Your task to perform on an android device: Open maps Image 0: 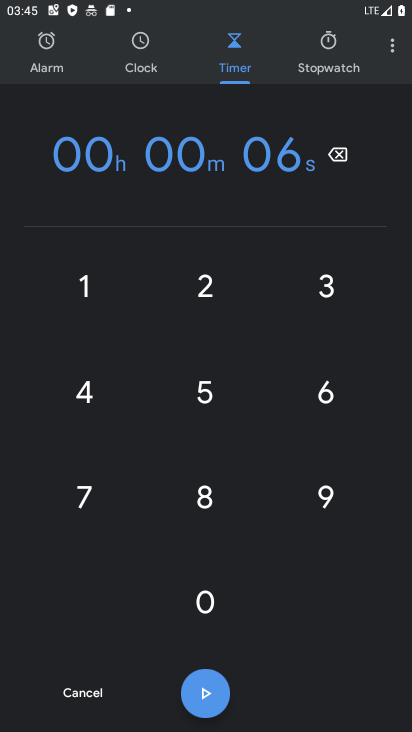
Step 0: press home button
Your task to perform on an android device: Open maps Image 1: 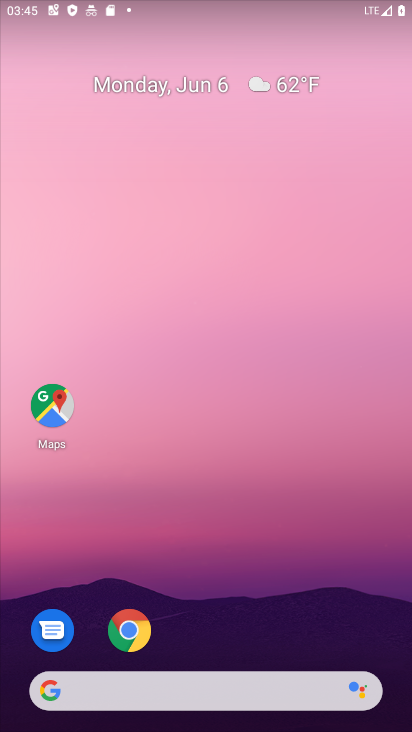
Step 1: click (70, 411)
Your task to perform on an android device: Open maps Image 2: 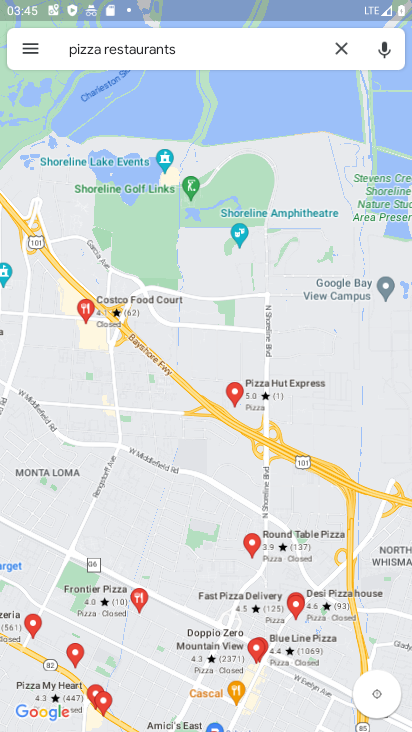
Step 2: task complete